Your task to perform on an android device: Open maps Image 0: 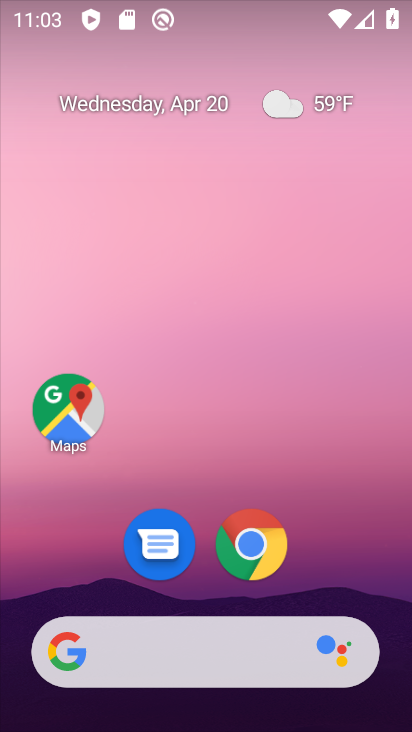
Step 0: click (58, 397)
Your task to perform on an android device: Open maps Image 1: 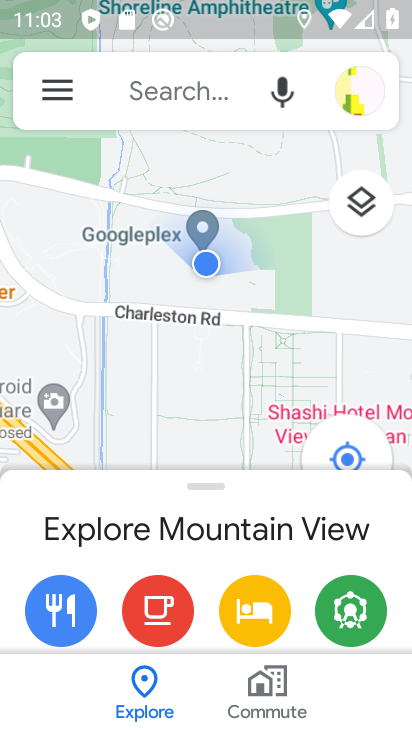
Step 1: task complete